Your task to perform on an android device: Go to Android settings Image 0: 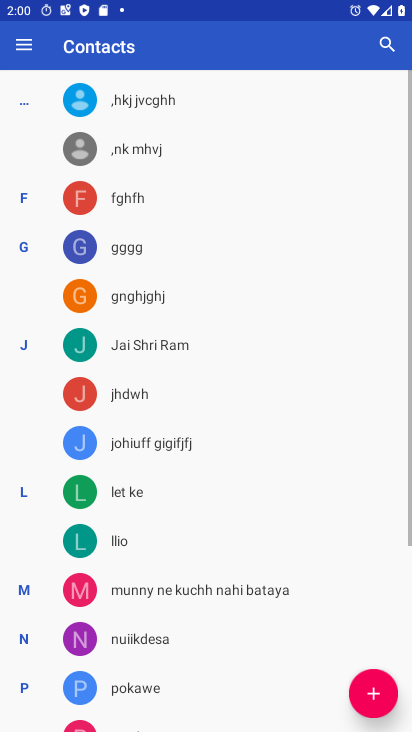
Step 0: press home button
Your task to perform on an android device: Go to Android settings Image 1: 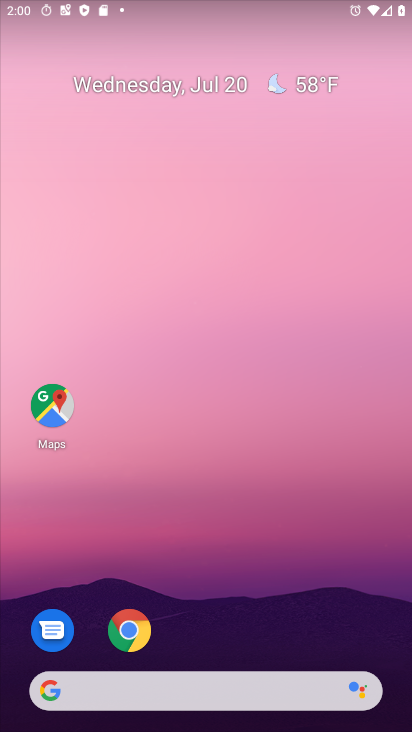
Step 1: drag from (136, 694) to (315, 100)
Your task to perform on an android device: Go to Android settings Image 2: 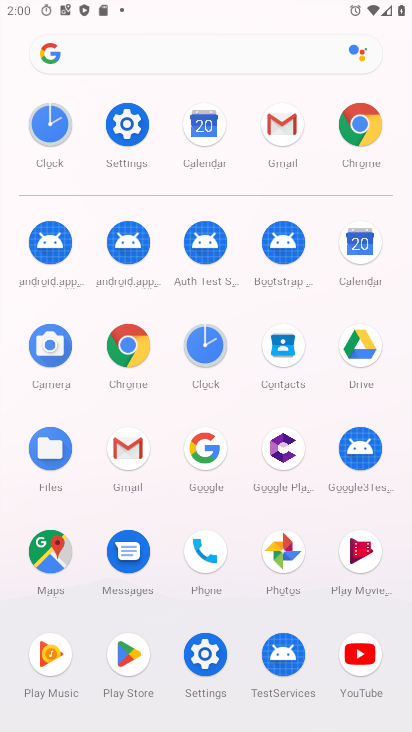
Step 2: click (129, 132)
Your task to perform on an android device: Go to Android settings Image 3: 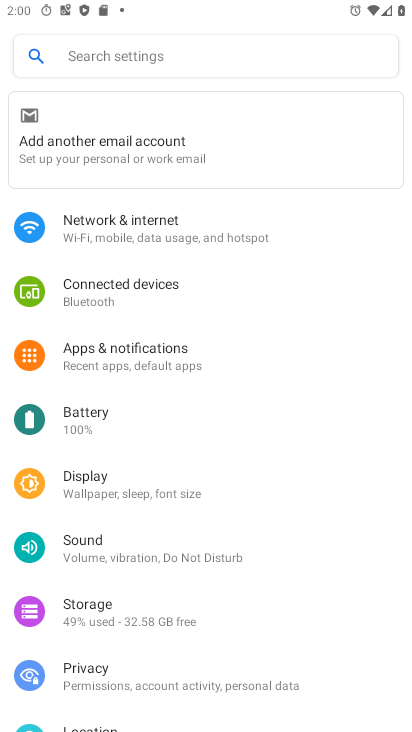
Step 3: task complete